Your task to perform on an android device: change notifications settings Image 0: 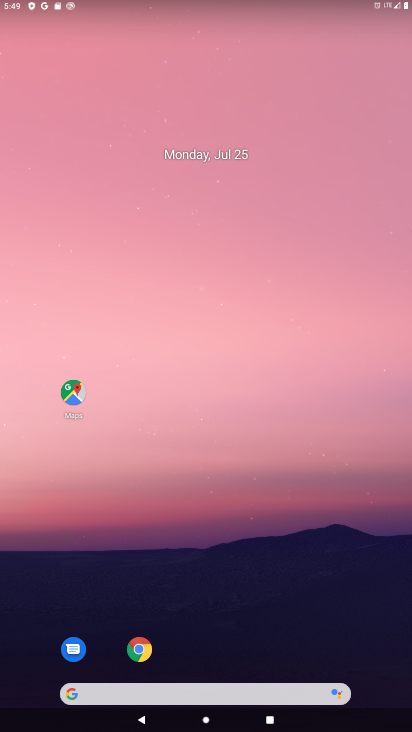
Step 0: drag from (175, 604) to (266, 59)
Your task to perform on an android device: change notifications settings Image 1: 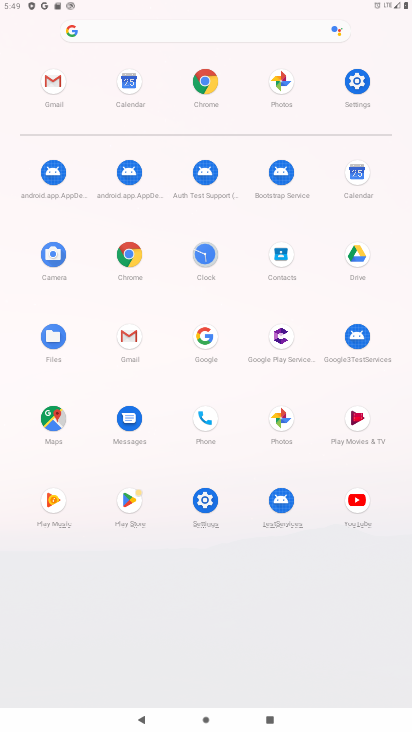
Step 1: click (362, 78)
Your task to perform on an android device: change notifications settings Image 2: 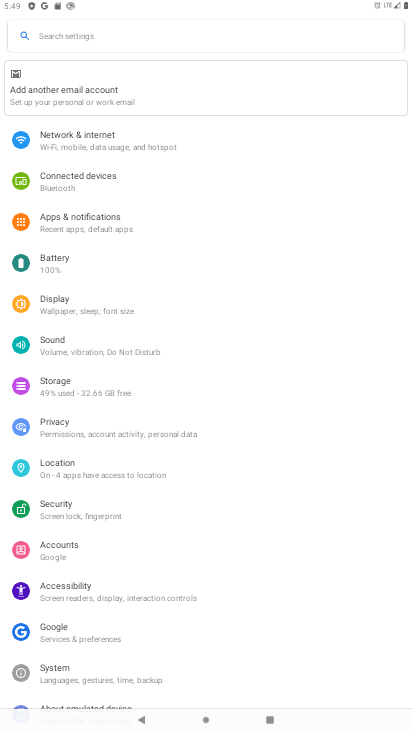
Step 2: click (108, 220)
Your task to perform on an android device: change notifications settings Image 3: 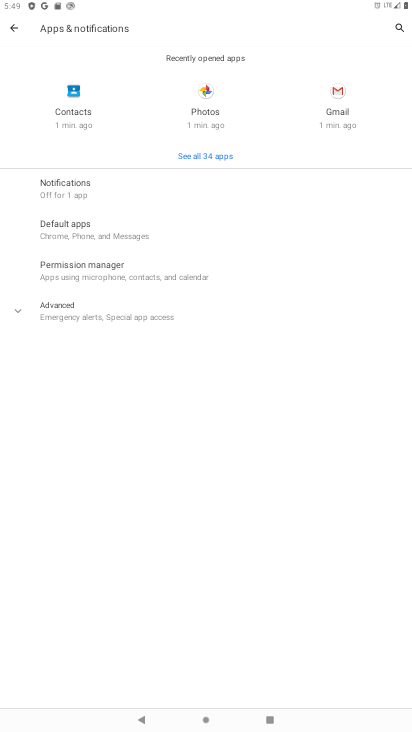
Step 3: task complete